Your task to perform on an android device: Turn off the flashlight Image 0: 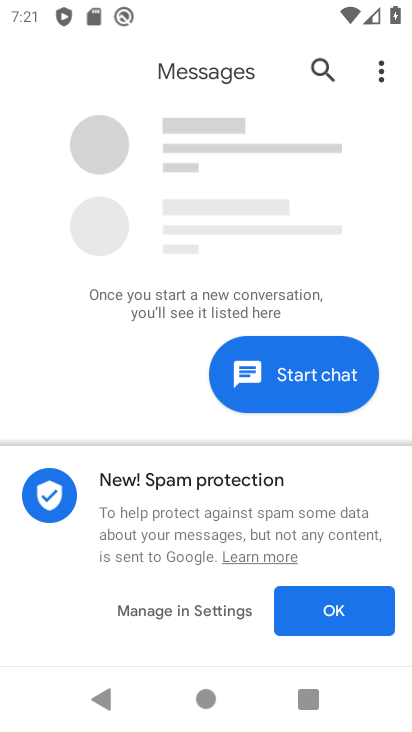
Step 0: click (156, 373)
Your task to perform on an android device: Turn off the flashlight Image 1: 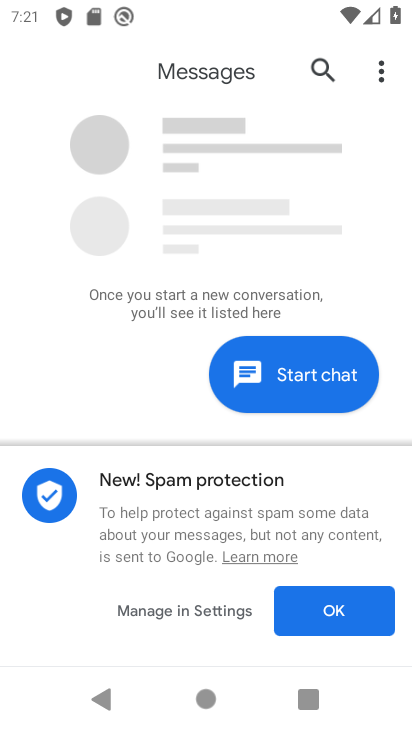
Step 1: press home button
Your task to perform on an android device: Turn off the flashlight Image 2: 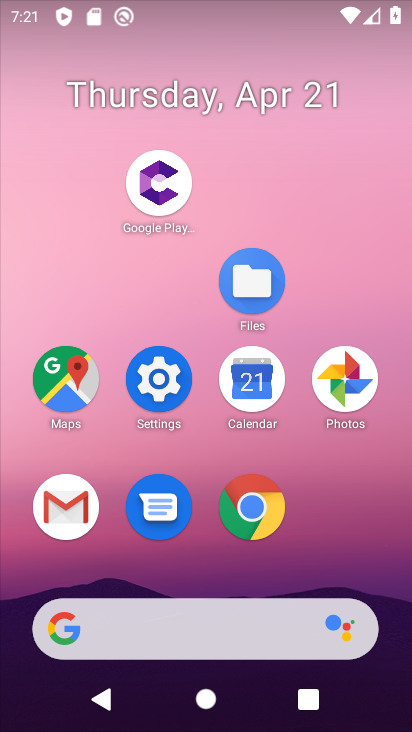
Step 2: click (159, 377)
Your task to perform on an android device: Turn off the flashlight Image 3: 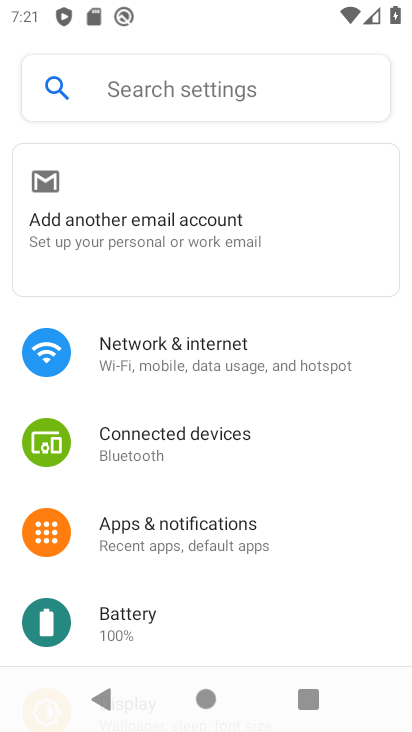
Step 3: drag from (207, 571) to (196, 291)
Your task to perform on an android device: Turn off the flashlight Image 4: 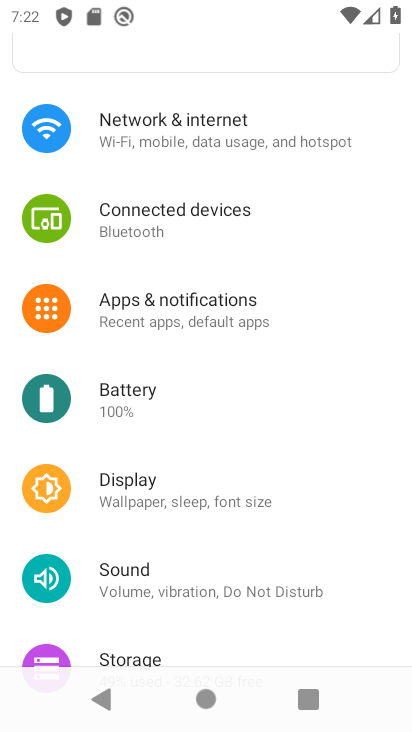
Step 4: click (121, 493)
Your task to perform on an android device: Turn off the flashlight Image 5: 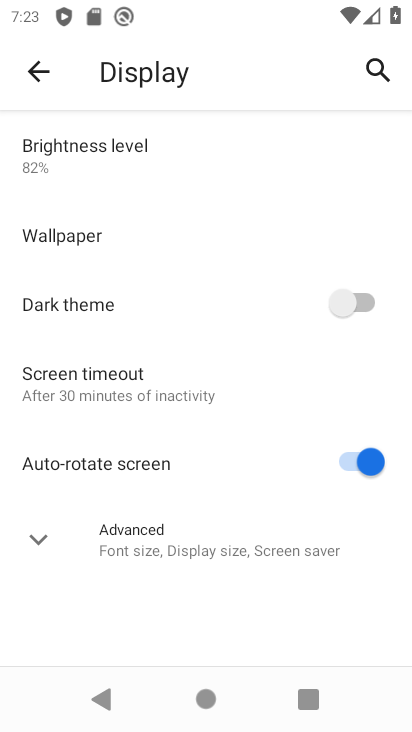
Step 5: task complete